Your task to perform on an android device: Open calendar and show me the third week of next month Image 0: 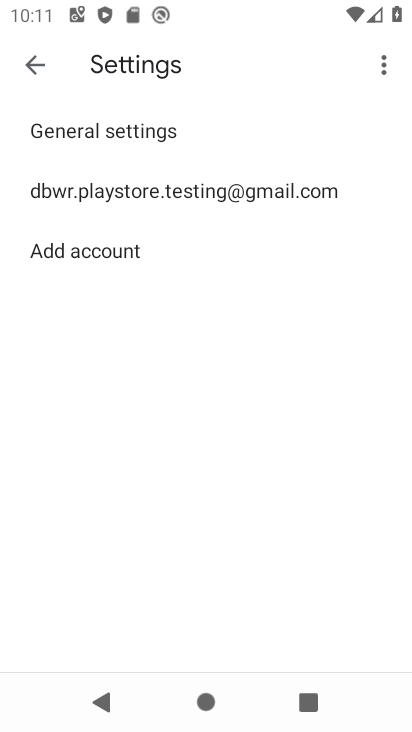
Step 0: press home button
Your task to perform on an android device: Open calendar and show me the third week of next month Image 1: 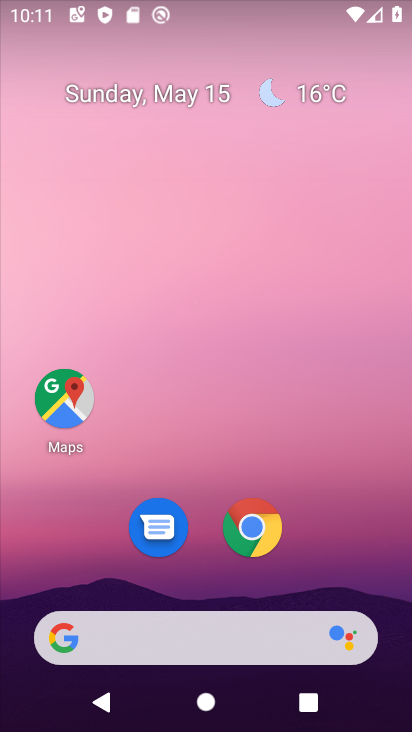
Step 1: drag from (331, 556) to (355, 14)
Your task to perform on an android device: Open calendar and show me the third week of next month Image 2: 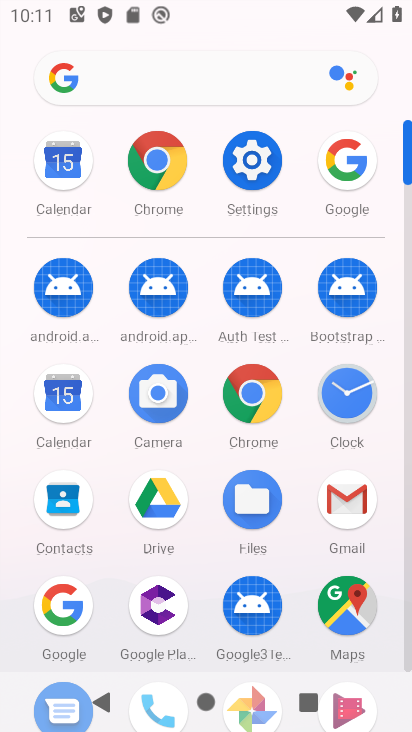
Step 2: click (58, 172)
Your task to perform on an android device: Open calendar and show me the third week of next month Image 3: 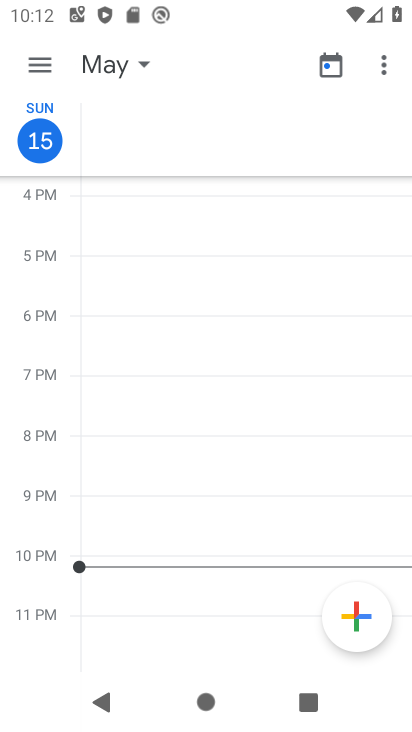
Step 3: click (144, 71)
Your task to perform on an android device: Open calendar and show me the third week of next month Image 4: 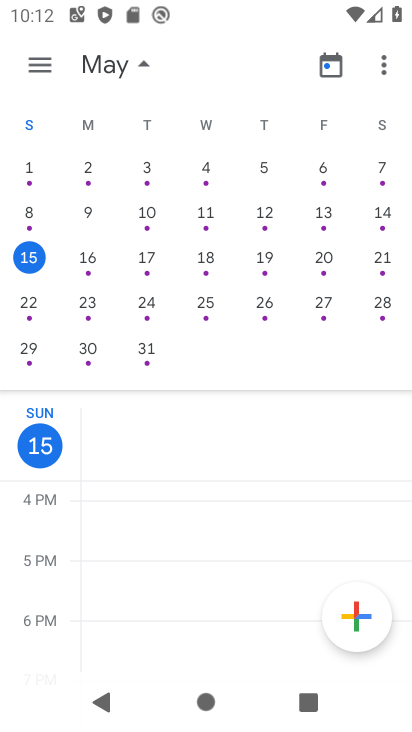
Step 4: drag from (320, 228) to (6, 247)
Your task to perform on an android device: Open calendar and show me the third week of next month Image 5: 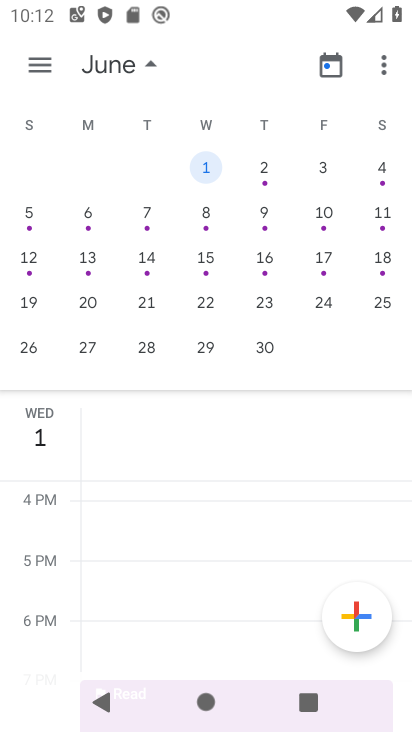
Step 5: click (44, 70)
Your task to perform on an android device: Open calendar and show me the third week of next month Image 6: 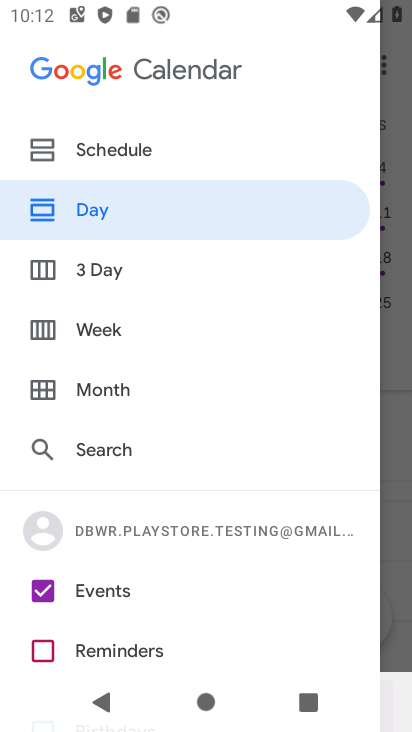
Step 6: click (50, 328)
Your task to perform on an android device: Open calendar and show me the third week of next month Image 7: 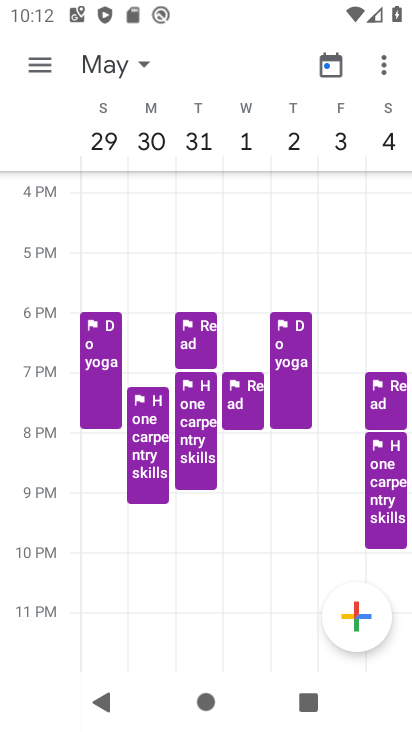
Step 7: task complete